Your task to perform on an android device: check out phone information Image 0: 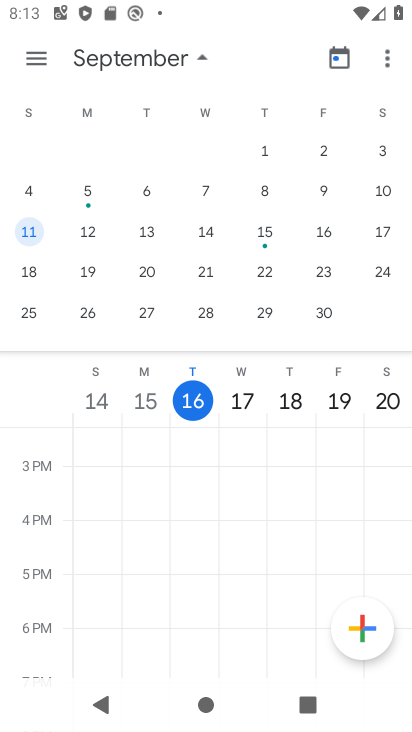
Step 0: press home button
Your task to perform on an android device: check out phone information Image 1: 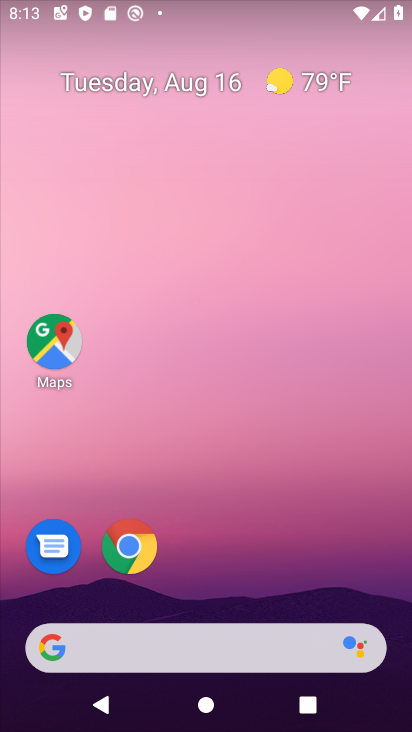
Step 1: drag from (230, 1) to (294, 18)
Your task to perform on an android device: check out phone information Image 2: 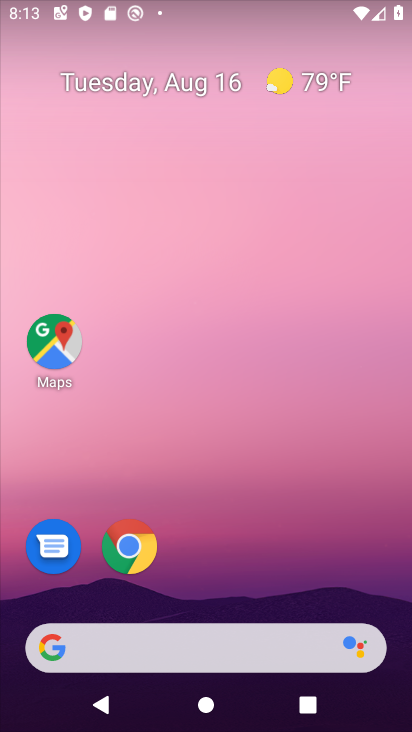
Step 2: drag from (209, 581) to (219, 21)
Your task to perform on an android device: check out phone information Image 3: 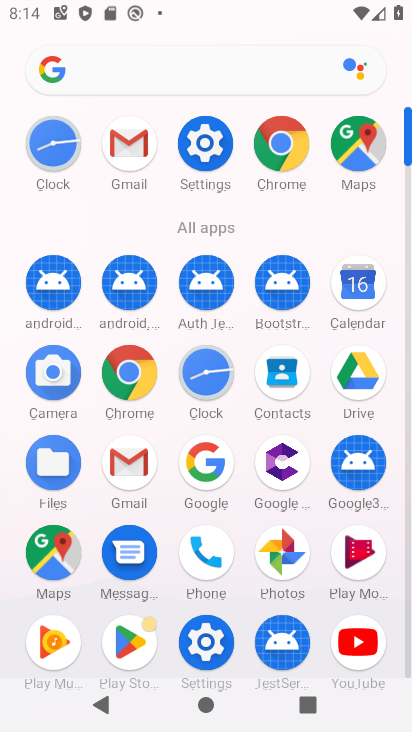
Step 3: click (203, 143)
Your task to perform on an android device: check out phone information Image 4: 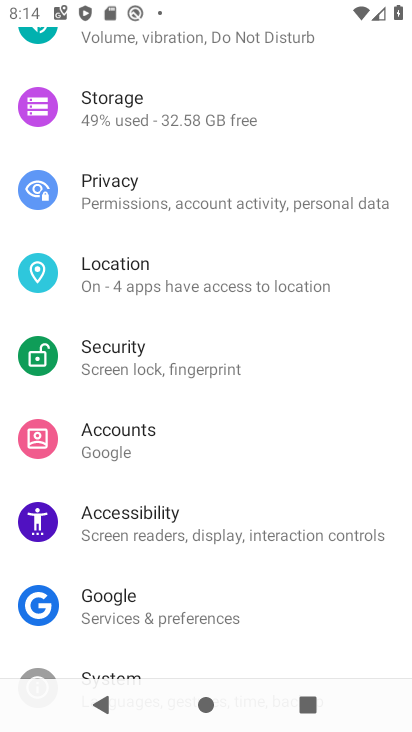
Step 4: drag from (206, 582) to (206, 89)
Your task to perform on an android device: check out phone information Image 5: 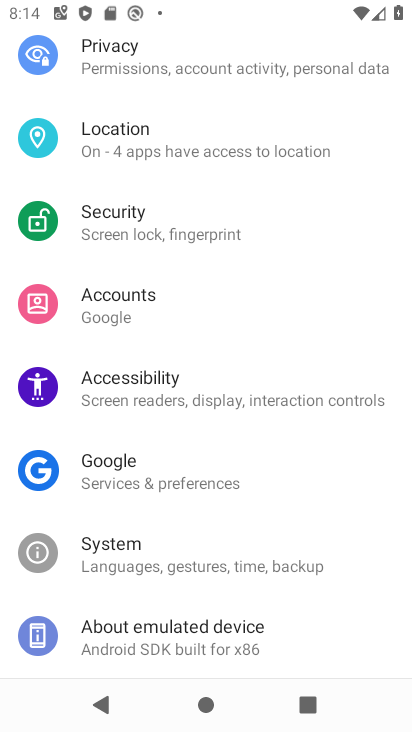
Step 5: click (171, 628)
Your task to perform on an android device: check out phone information Image 6: 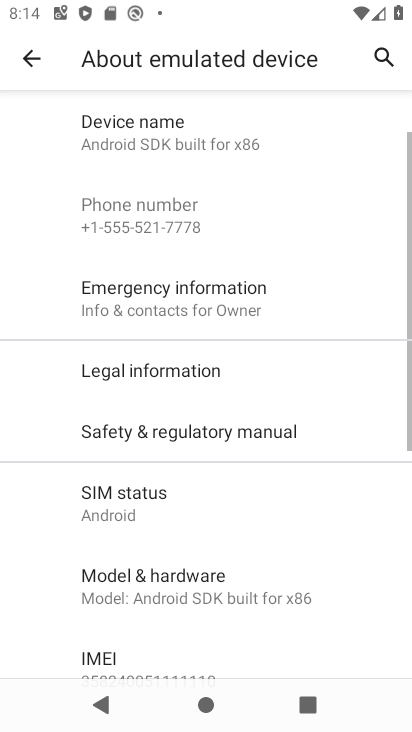
Step 6: task complete